Your task to perform on an android device: install app "Google Play Games" Image 0: 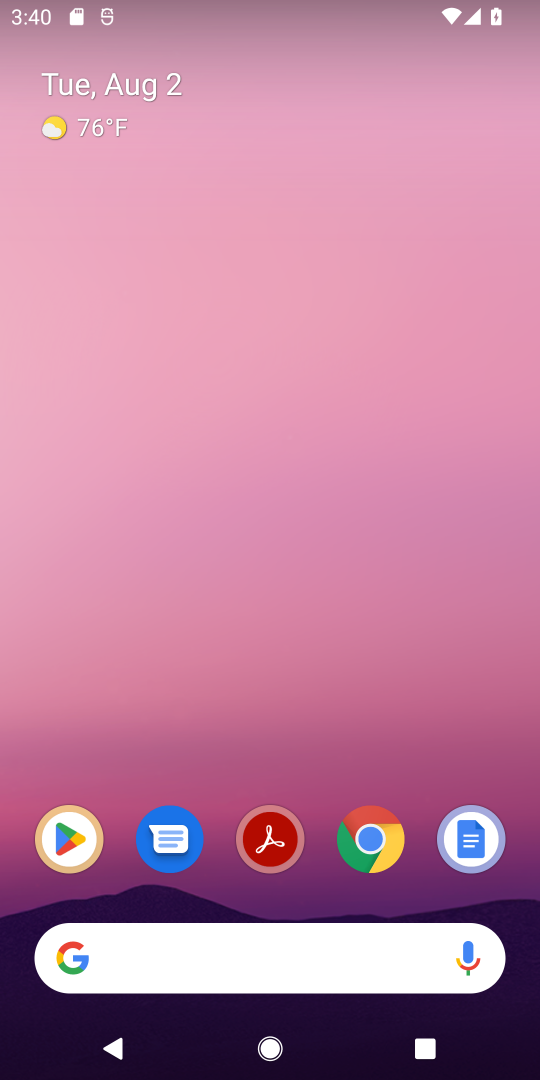
Step 0: click (68, 842)
Your task to perform on an android device: install app "Google Play Games" Image 1: 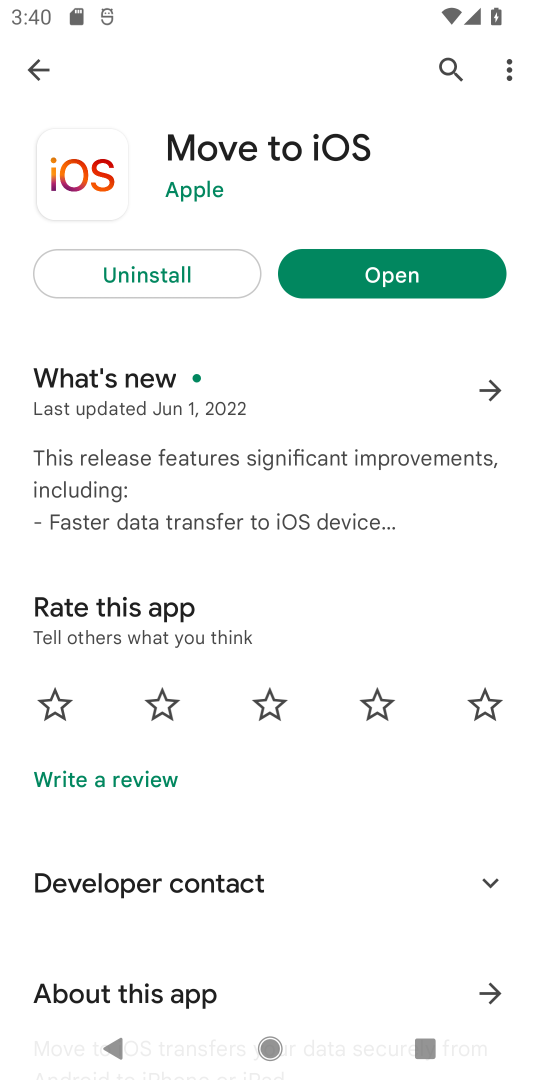
Step 1: click (450, 81)
Your task to perform on an android device: install app "Google Play Games" Image 2: 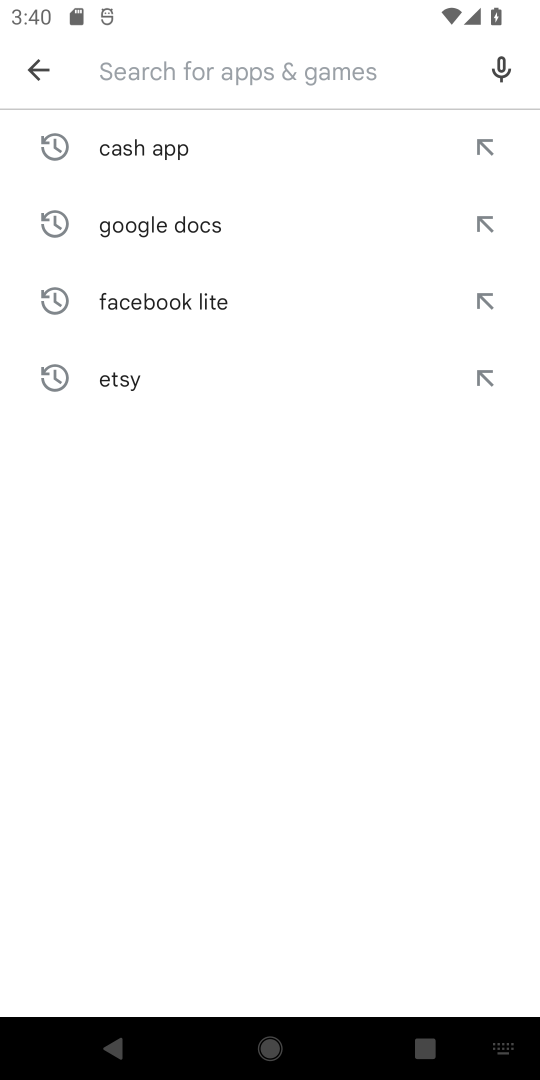
Step 2: type "google play game"
Your task to perform on an android device: install app "Google Play Games" Image 3: 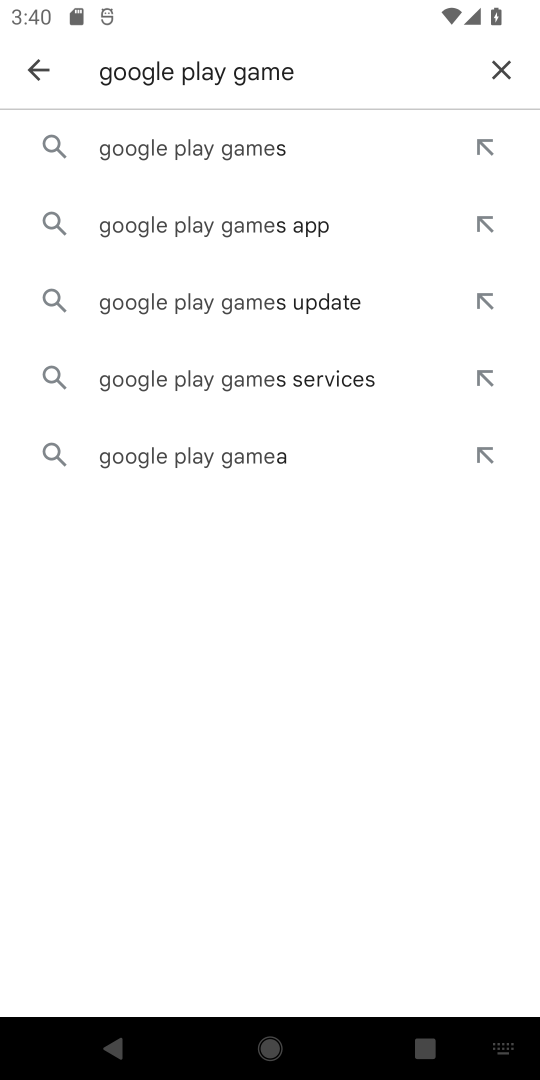
Step 3: click (349, 138)
Your task to perform on an android device: install app "Google Play Games" Image 4: 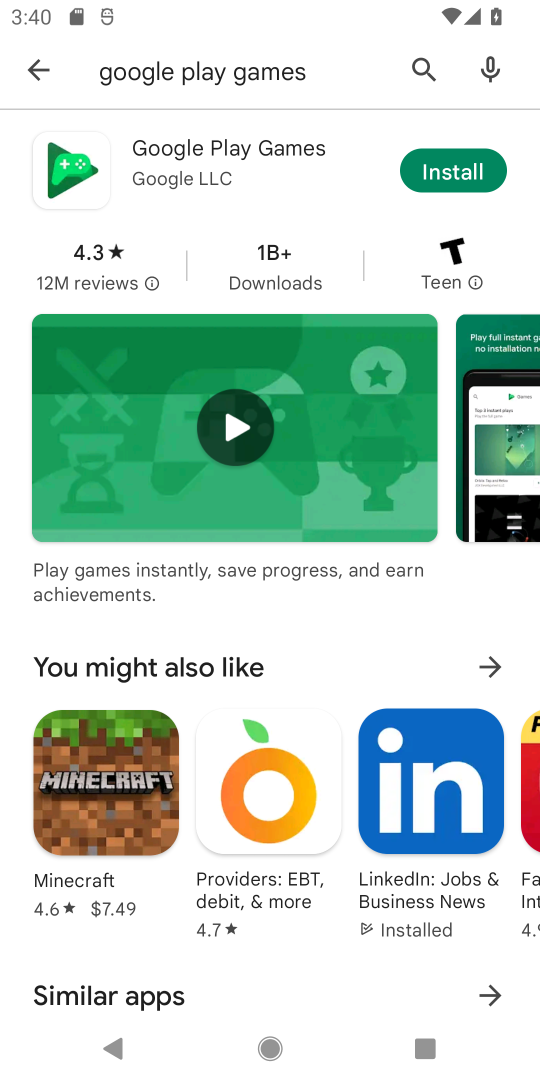
Step 4: click (454, 165)
Your task to perform on an android device: install app "Google Play Games" Image 5: 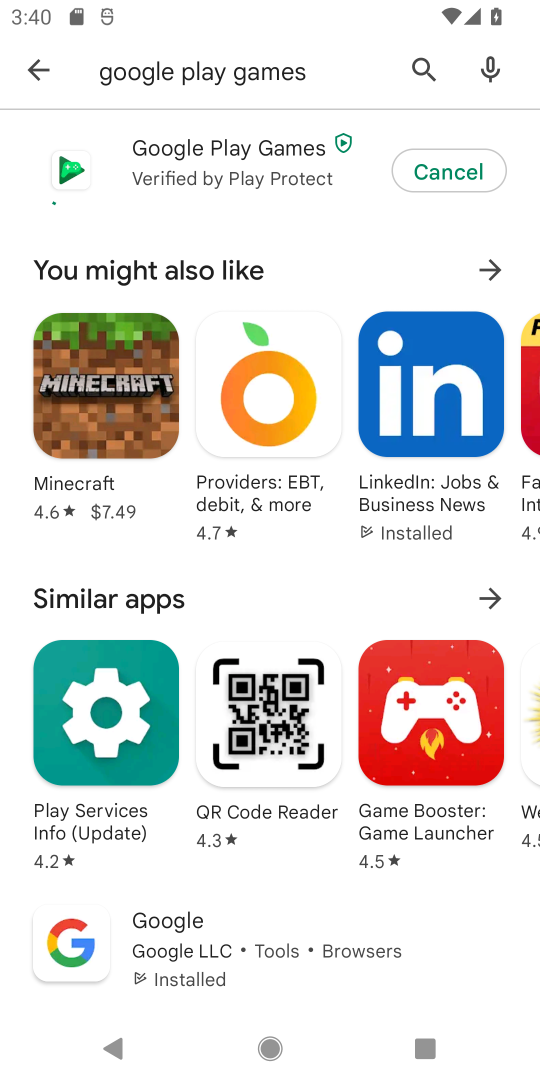
Step 5: task complete